Your task to perform on an android device: Open Chrome and go to settings Image 0: 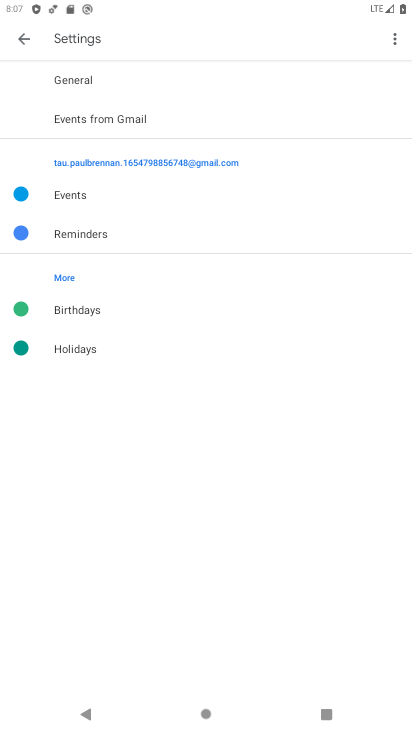
Step 0: press home button
Your task to perform on an android device: Open Chrome and go to settings Image 1: 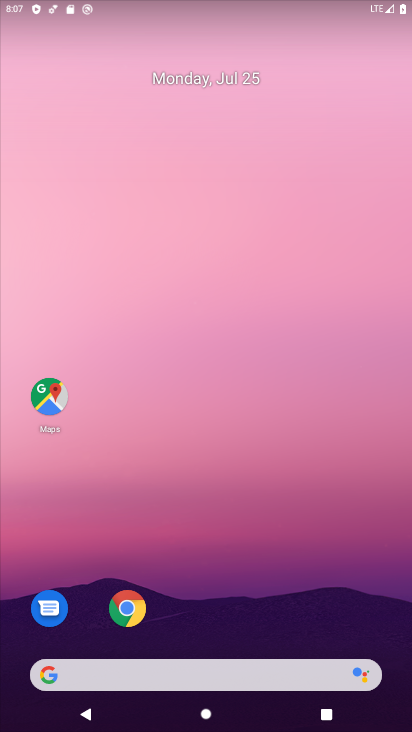
Step 1: click (127, 610)
Your task to perform on an android device: Open Chrome and go to settings Image 2: 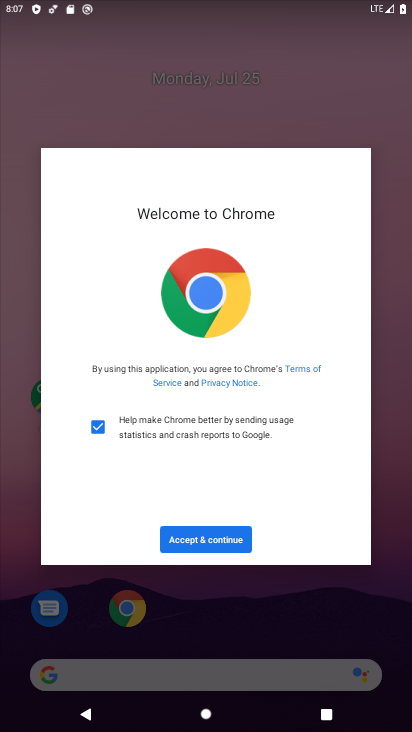
Step 2: click (215, 538)
Your task to perform on an android device: Open Chrome and go to settings Image 3: 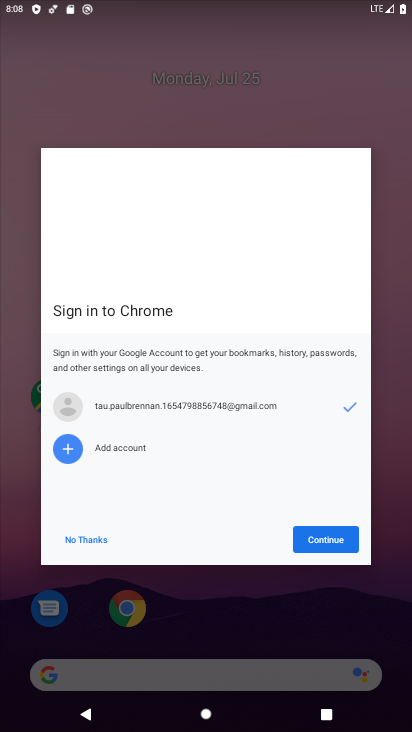
Step 3: click (329, 542)
Your task to perform on an android device: Open Chrome and go to settings Image 4: 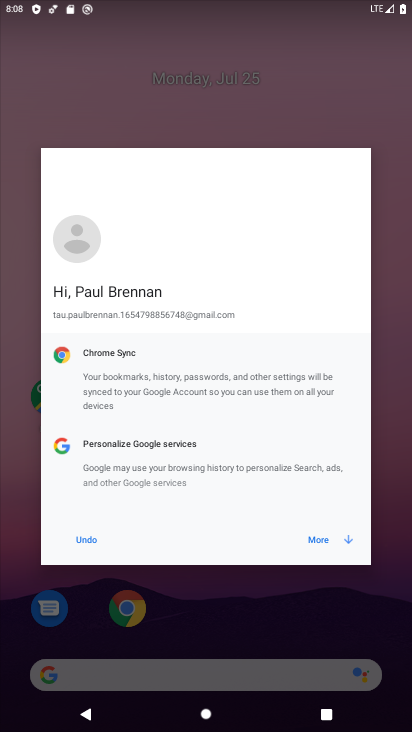
Step 4: click (325, 539)
Your task to perform on an android device: Open Chrome and go to settings Image 5: 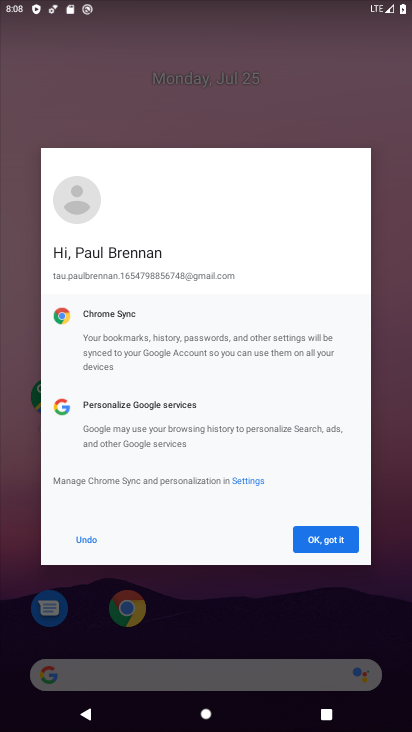
Step 5: click (327, 535)
Your task to perform on an android device: Open Chrome and go to settings Image 6: 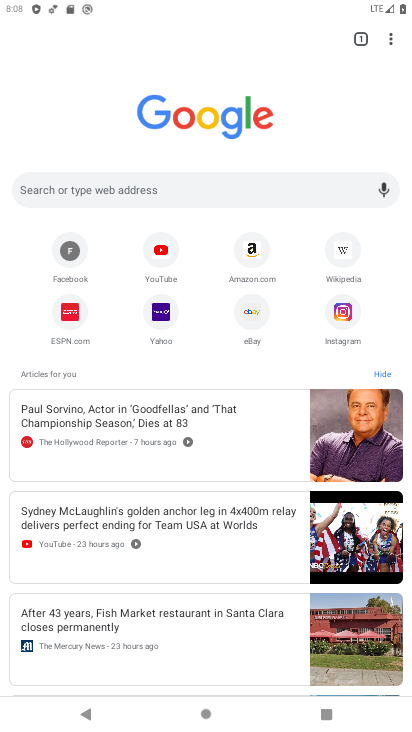
Step 6: click (391, 39)
Your task to perform on an android device: Open Chrome and go to settings Image 7: 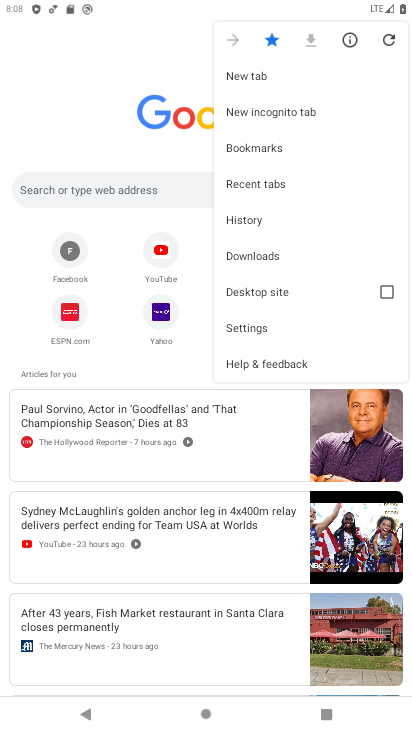
Step 7: click (261, 327)
Your task to perform on an android device: Open Chrome and go to settings Image 8: 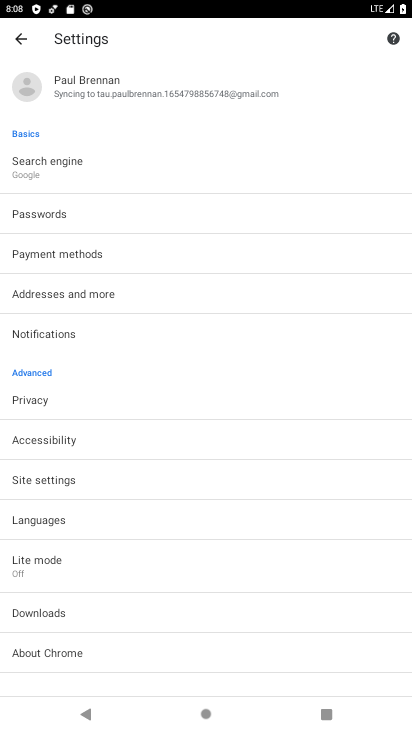
Step 8: task complete